Your task to perform on an android device: Go to accessibility settings Image 0: 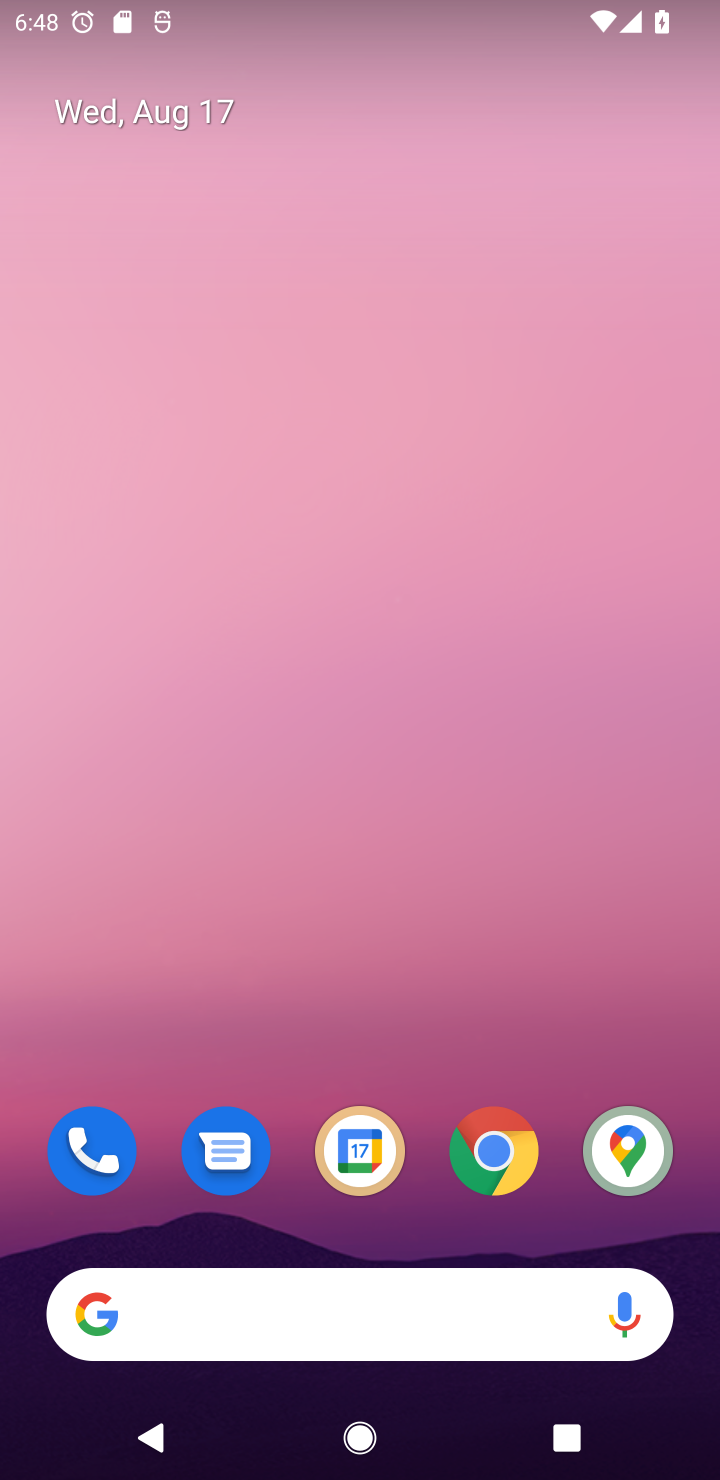
Step 0: drag from (400, 1180) to (414, 161)
Your task to perform on an android device: Go to accessibility settings Image 1: 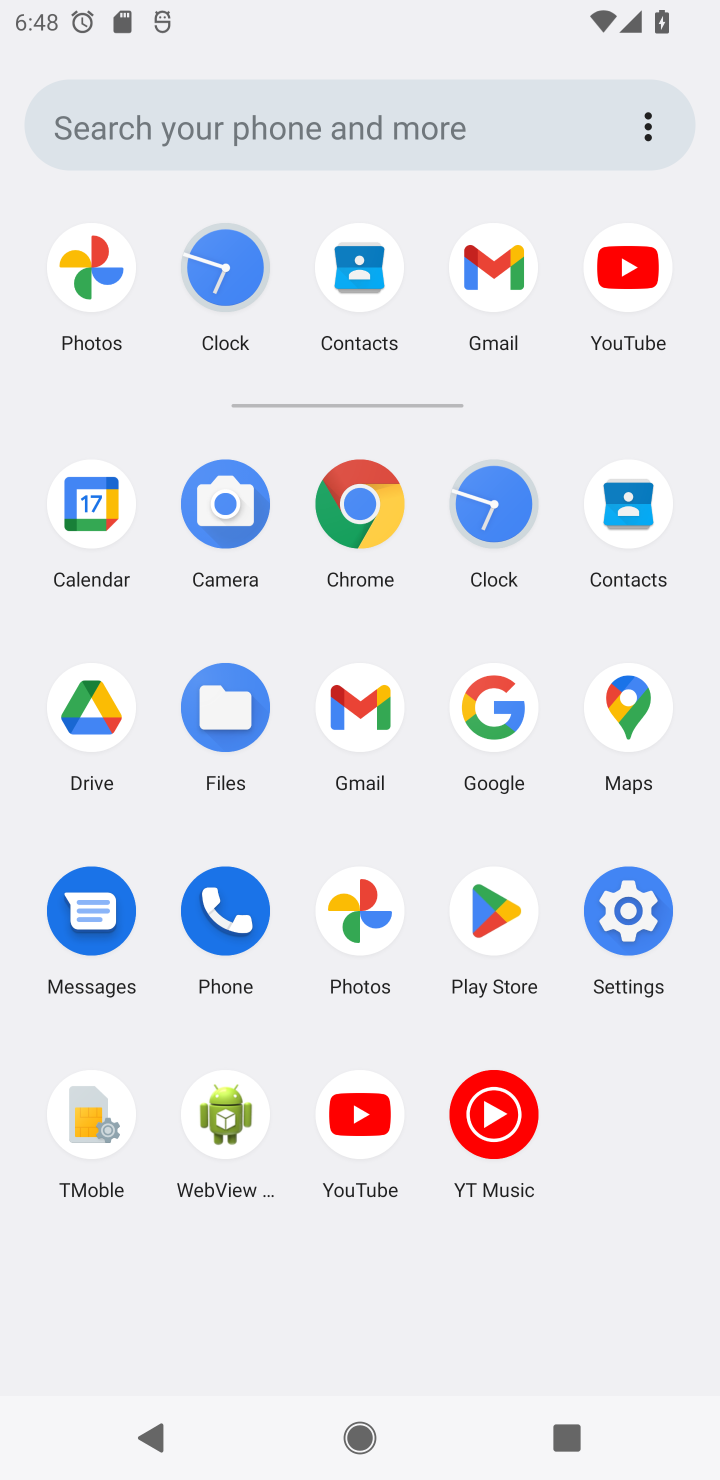
Step 1: click (630, 876)
Your task to perform on an android device: Go to accessibility settings Image 2: 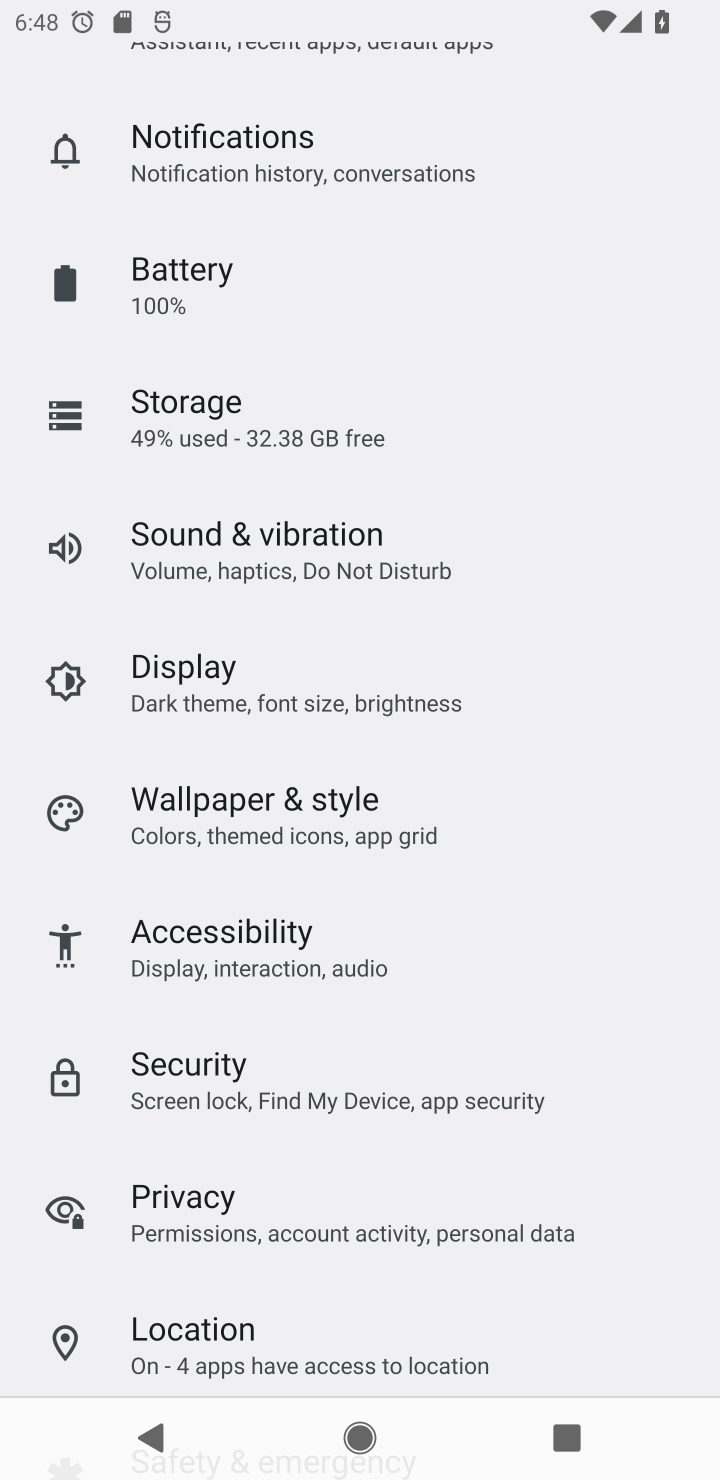
Step 2: click (330, 915)
Your task to perform on an android device: Go to accessibility settings Image 3: 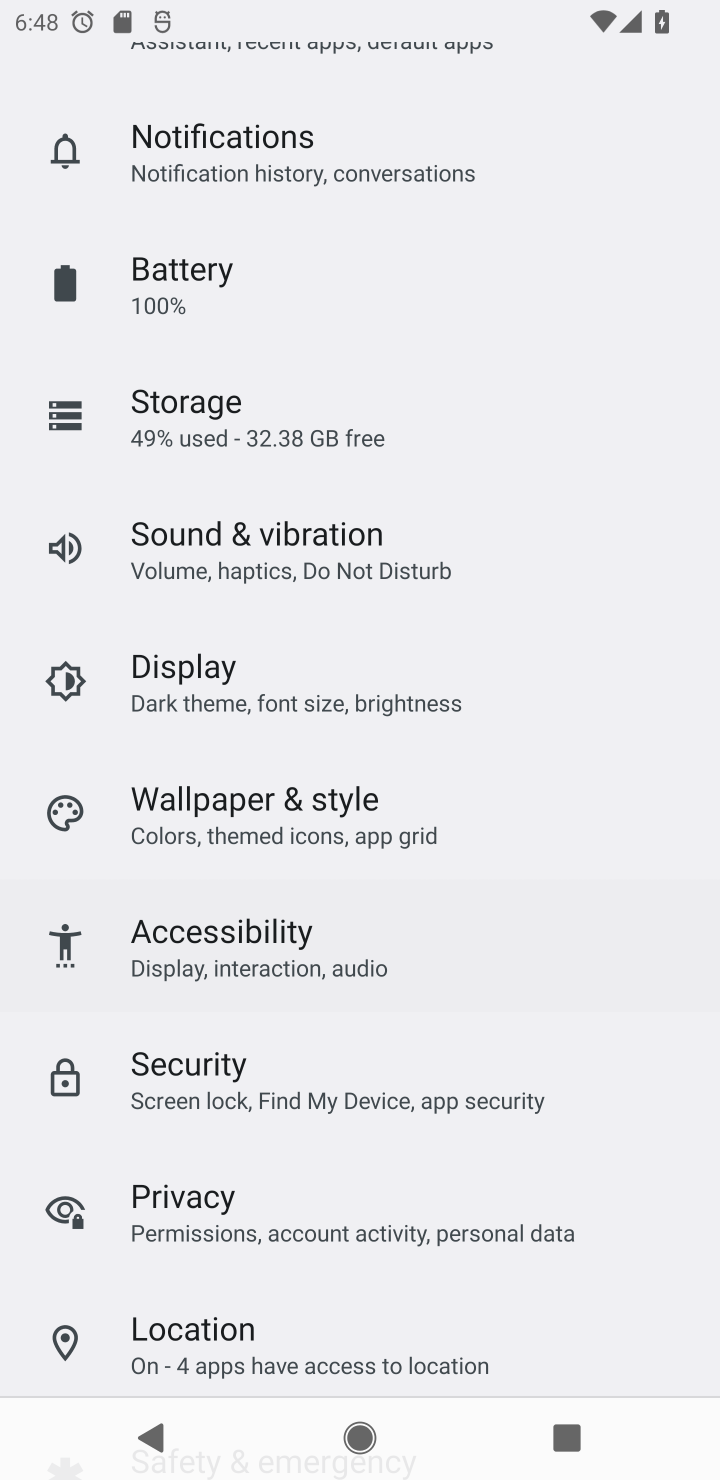
Step 3: task complete